Your task to perform on an android device: Open the calendar and show me this week's events Image 0: 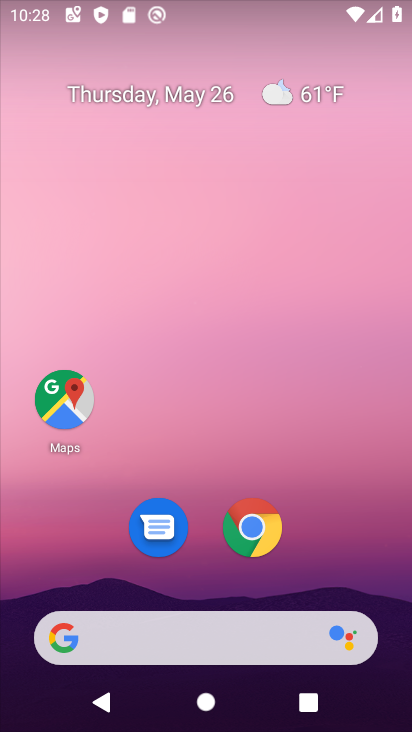
Step 0: drag from (194, 474) to (209, 60)
Your task to perform on an android device: Open the calendar and show me this week's events Image 1: 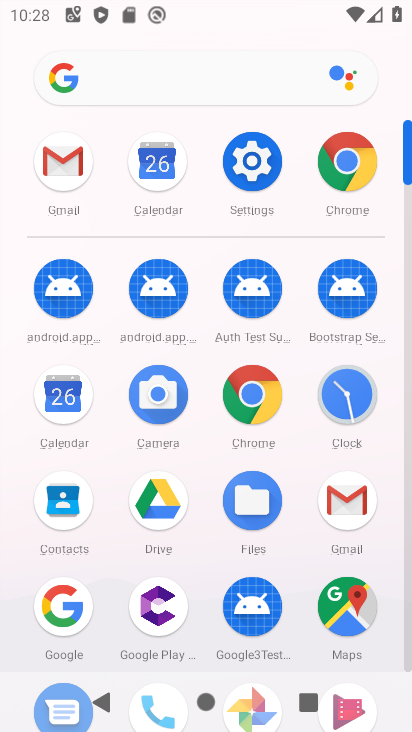
Step 1: click (50, 402)
Your task to perform on an android device: Open the calendar and show me this week's events Image 2: 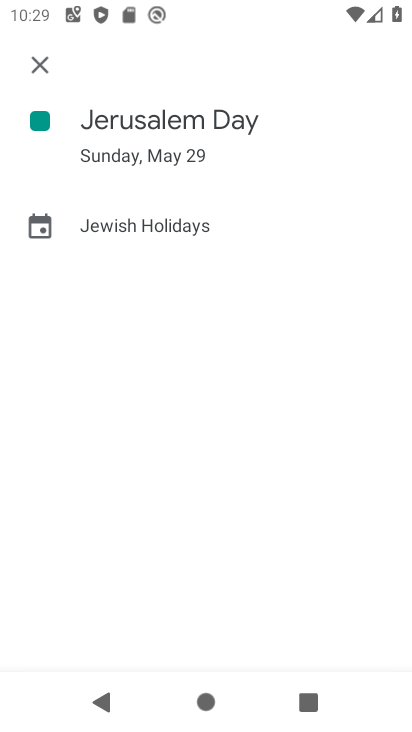
Step 2: click (36, 59)
Your task to perform on an android device: Open the calendar and show me this week's events Image 3: 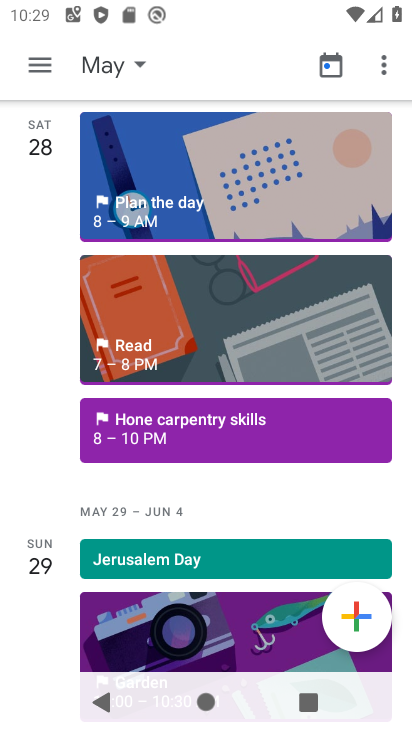
Step 3: drag from (216, 279) to (188, 642)
Your task to perform on an android device: Open the calendar and show me this week's events Image 4: 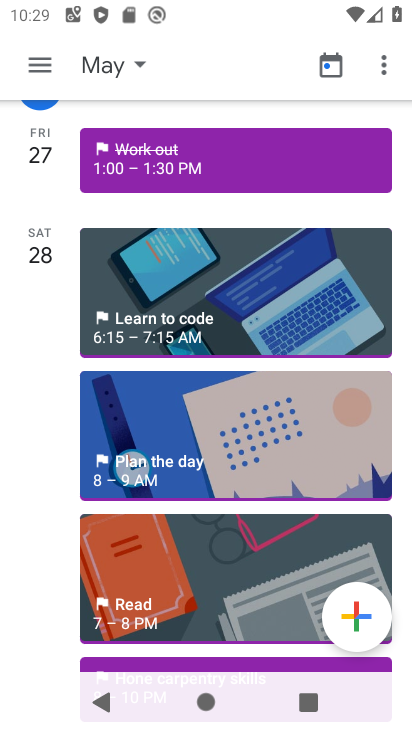
Step 4: click (164, 304)
Your task to perform on an android device: Open the calendar and show me this week's events Image 5: 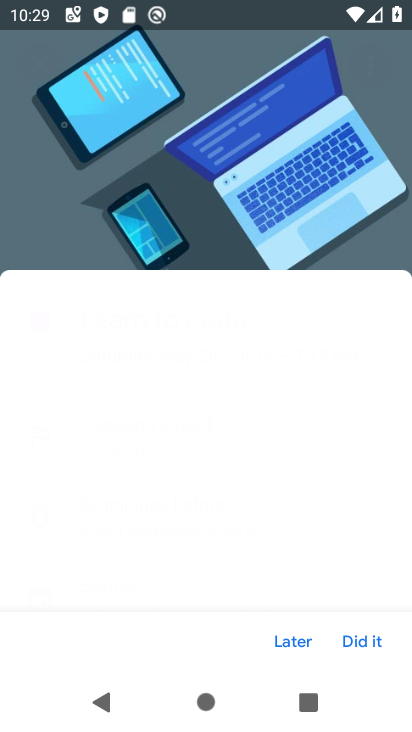
Step 5: task complete